Your task to perform on an android device: Open location settings Image 0: 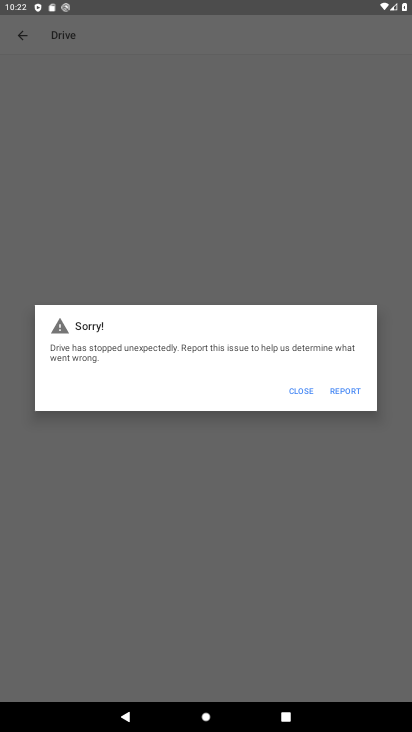
Step 0: press home button
Your task to perform on an android device: Open location settings Image 1: 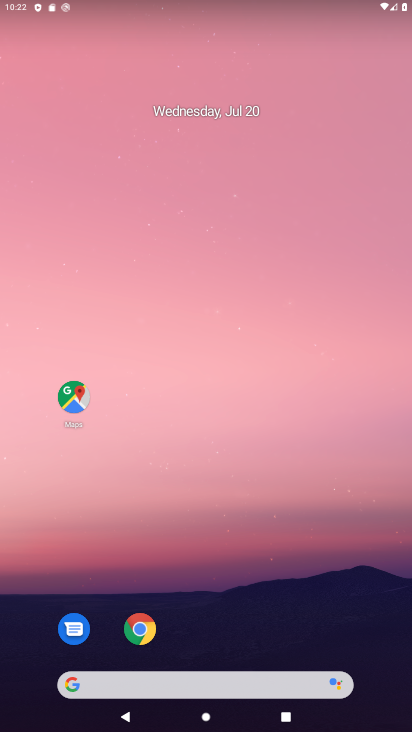
Step 1: drag from (201, 622) to (146, 70)
Your task to perform on an android device: Open location settings Image 2: 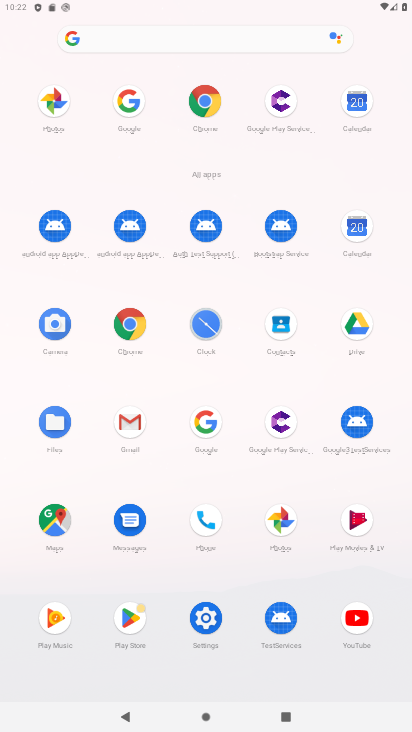
Step 2: click (220, 620)
Your task to perform on an android device: Open location settings Image 3: 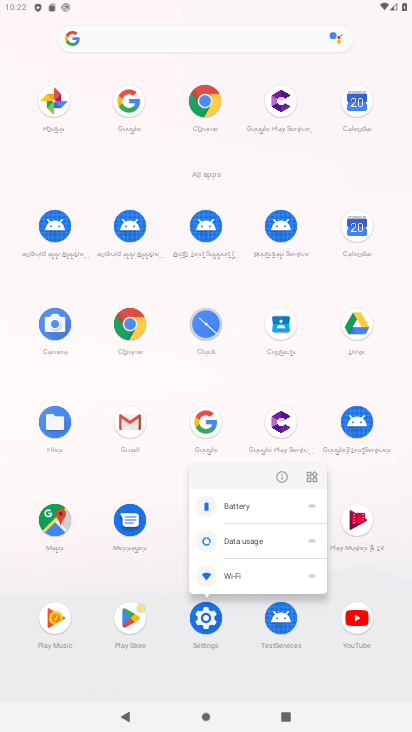
Step 3: click (196, 624)
Your task to perform on an android device: Open location settings Image 4: 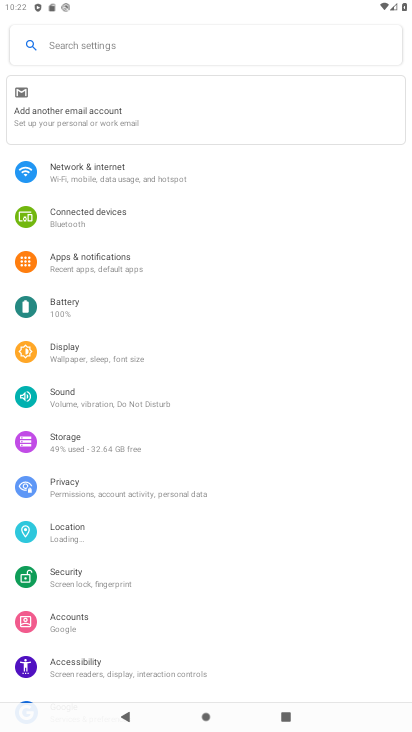
Step 4: click (97, 528)
Your task to perform on an android device: Open location settings Image 5: 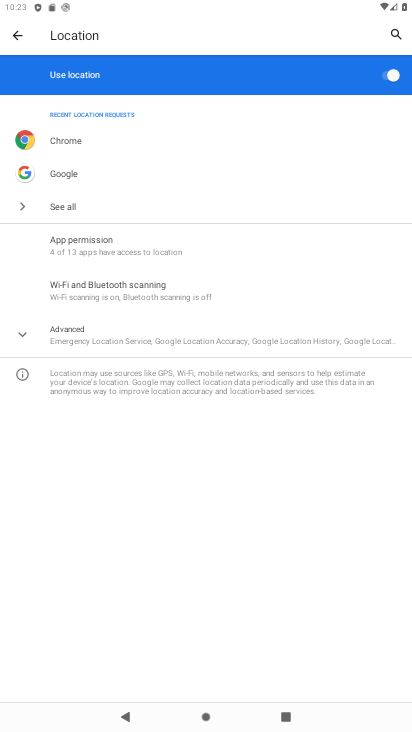
Step 5: task complete